Your task to perform on an android device: clear history in the chrome app Image 0: 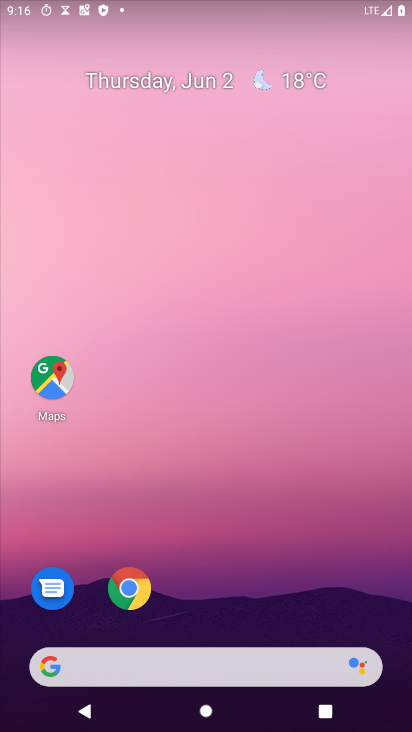
Step 0: click (129, 592)
Your task to perform on an android device: clear history in the chrome app Image 1: 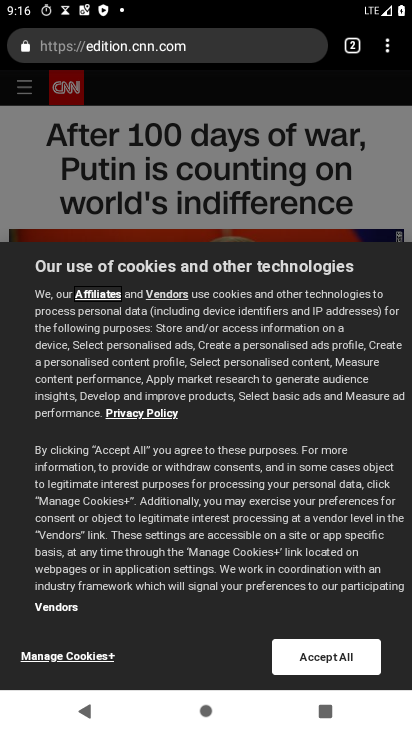
Step 1: drag from (389, 47) to (235, 252)
Your task to perform on an android device: clear history in the chrome app Image 2: 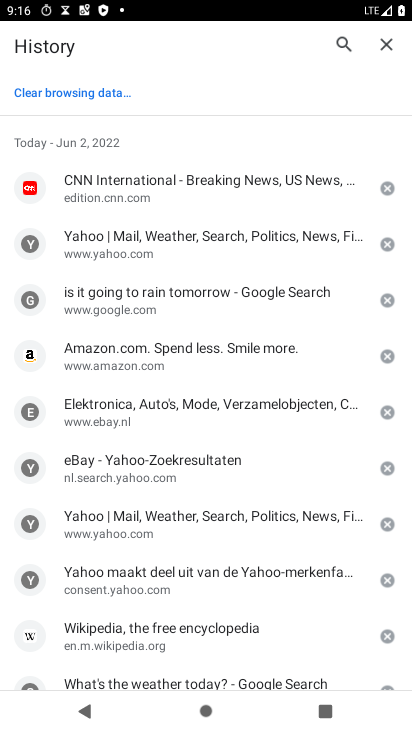
Step 2: click (83, 92)
Your task to perform on an android device: clear history in the chrome app Image 3: 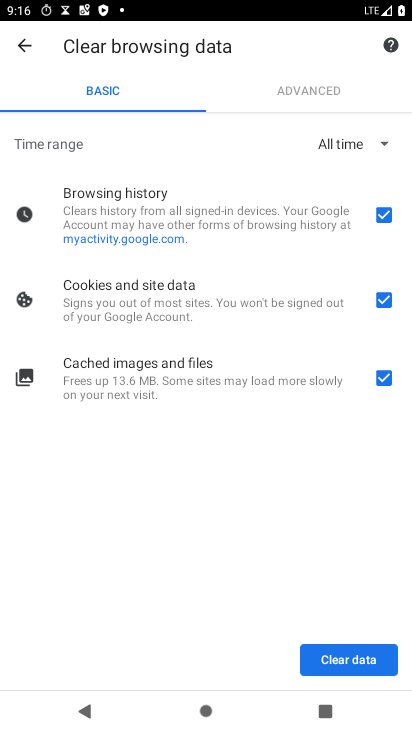
Step 3: click (336, 660)
Your task to perform on an android device: clear history in the chrome app Image 4: 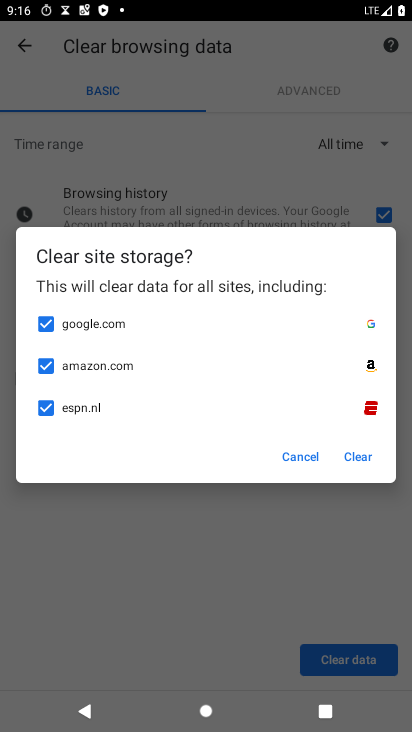
Step 4: click (347, 456)
Your task to perform on an android device: clear history in the chrome app Image 5: 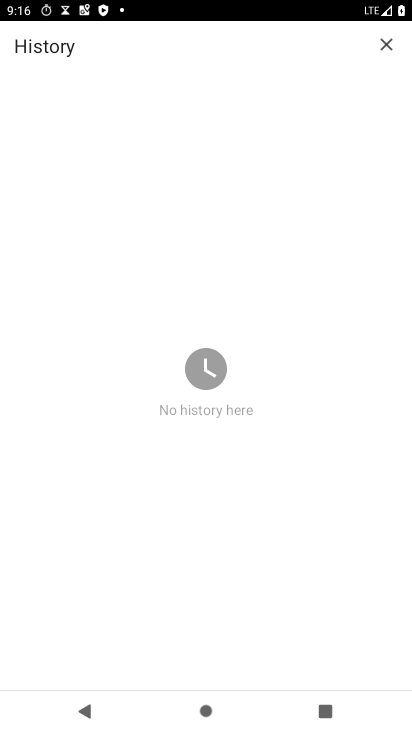
Step 5: task complete